Your task to perform on an android device: What's the weather today? Image 0: 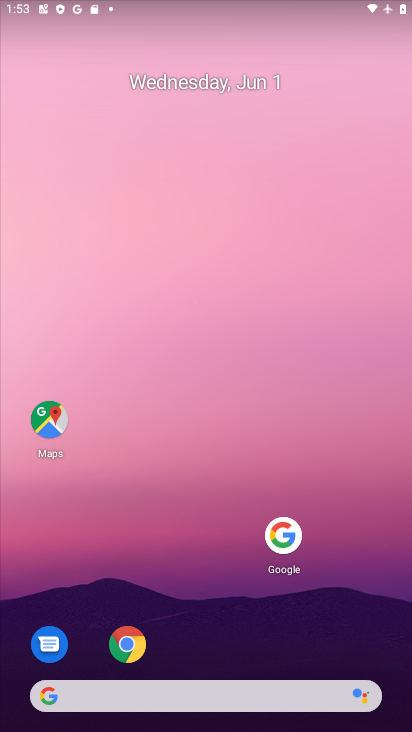
Step 0: click (55, 695)
Your task to perform on an android device: What's the weather today? Image 1: 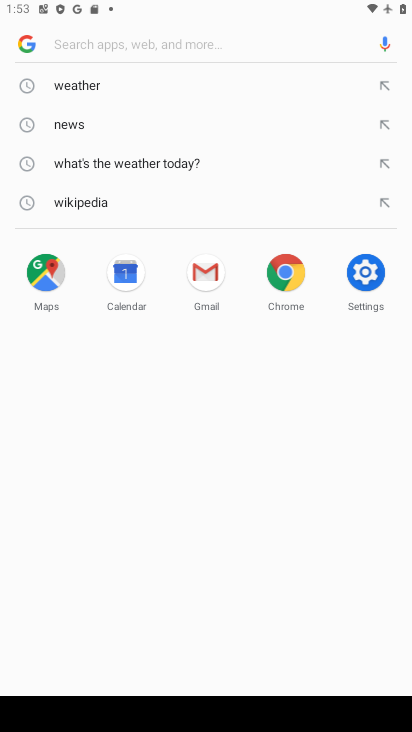
Step 1: click (91, 84)
Your task to perform on an android device: What's the weather today? Image 2: 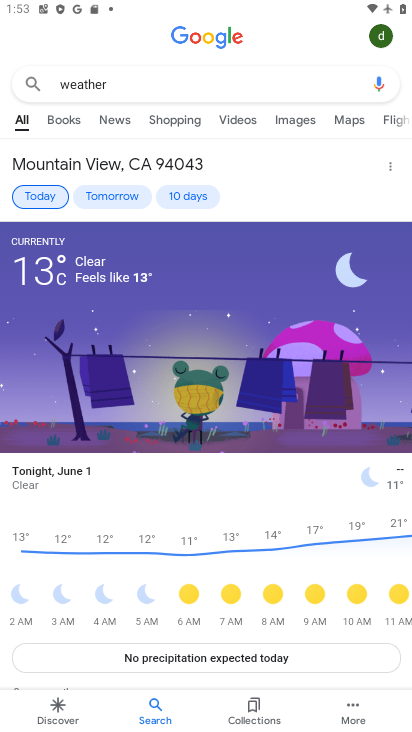
Step 2: task complete